Your task to perform on an android device: turn off sleep mode Image 0: 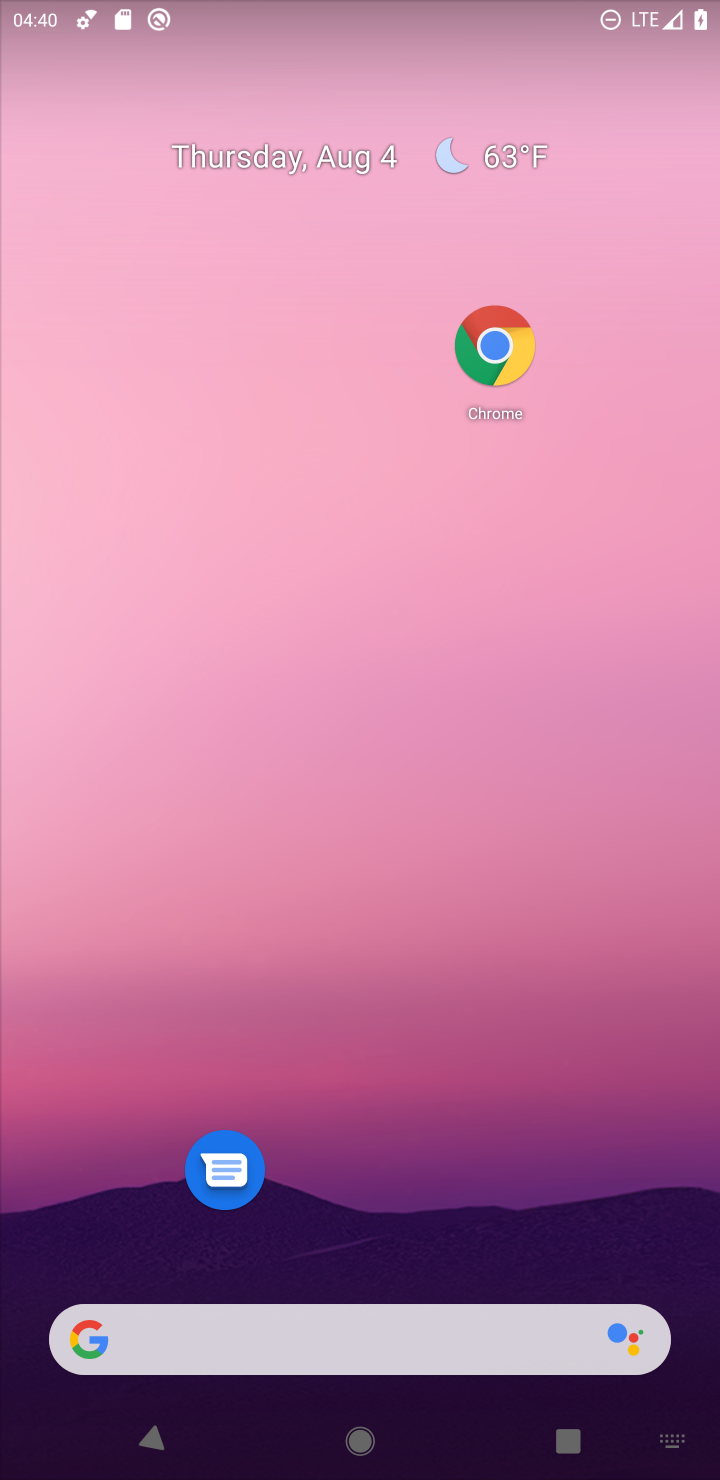
Step 0: drag from (665, 1267) to (543, 266)
Your task to perform on an android device: turn off sleep mode Image 1: 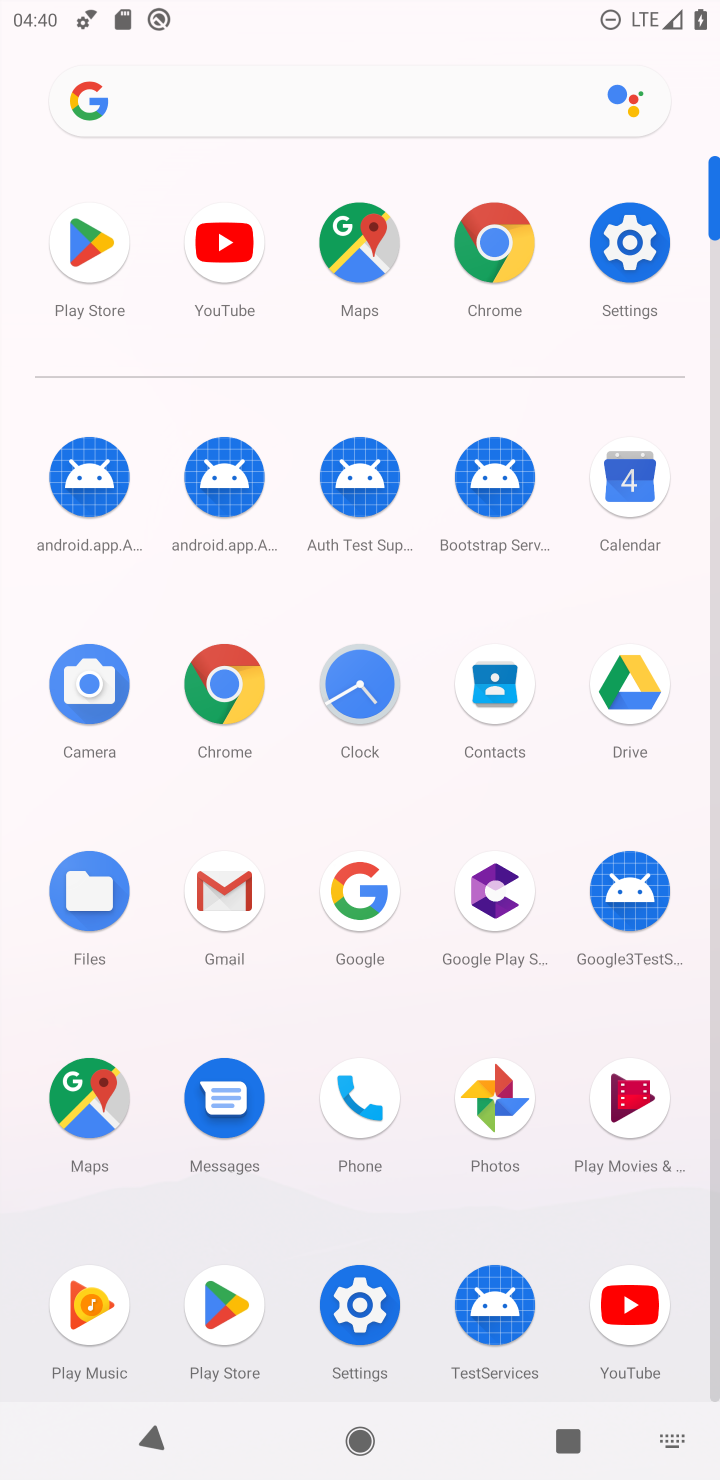
Step 1: click (631, 247)
Your task to perform on an android device: turn off sleep mode Image 2: 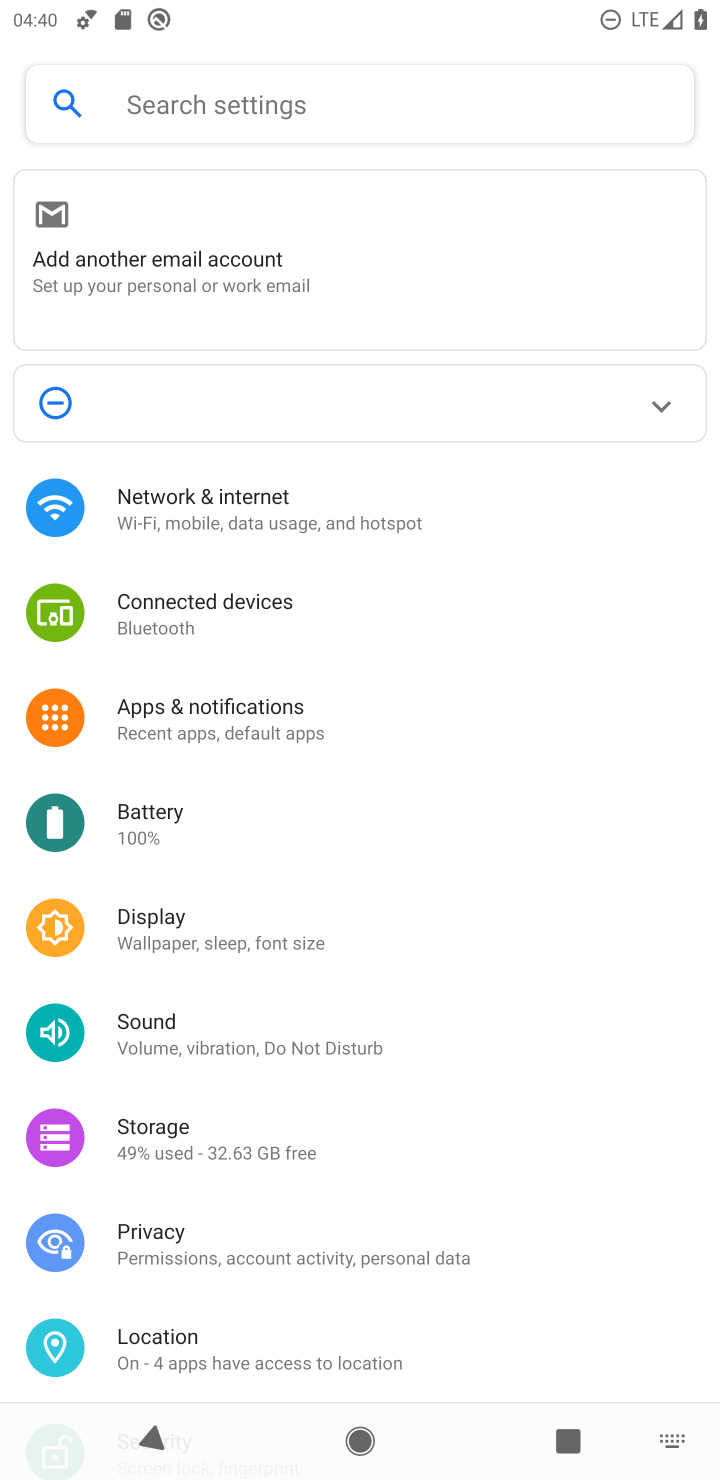
Step 2: click (343, 935)
Your task to perform on an android device: turn off sleep mode Image 3: 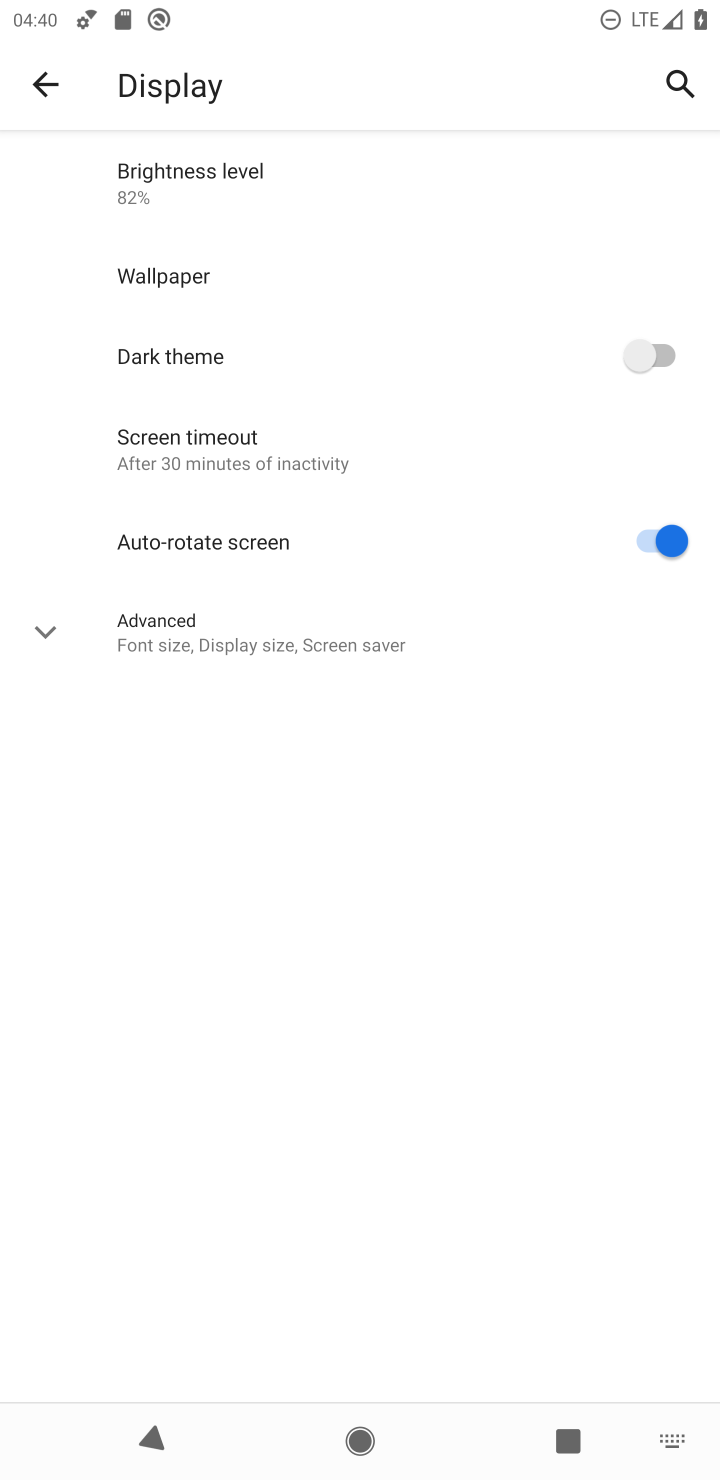
Step 3: click (396, 638)
Your task to perform on an android device: turn off sleep mode Image 4: 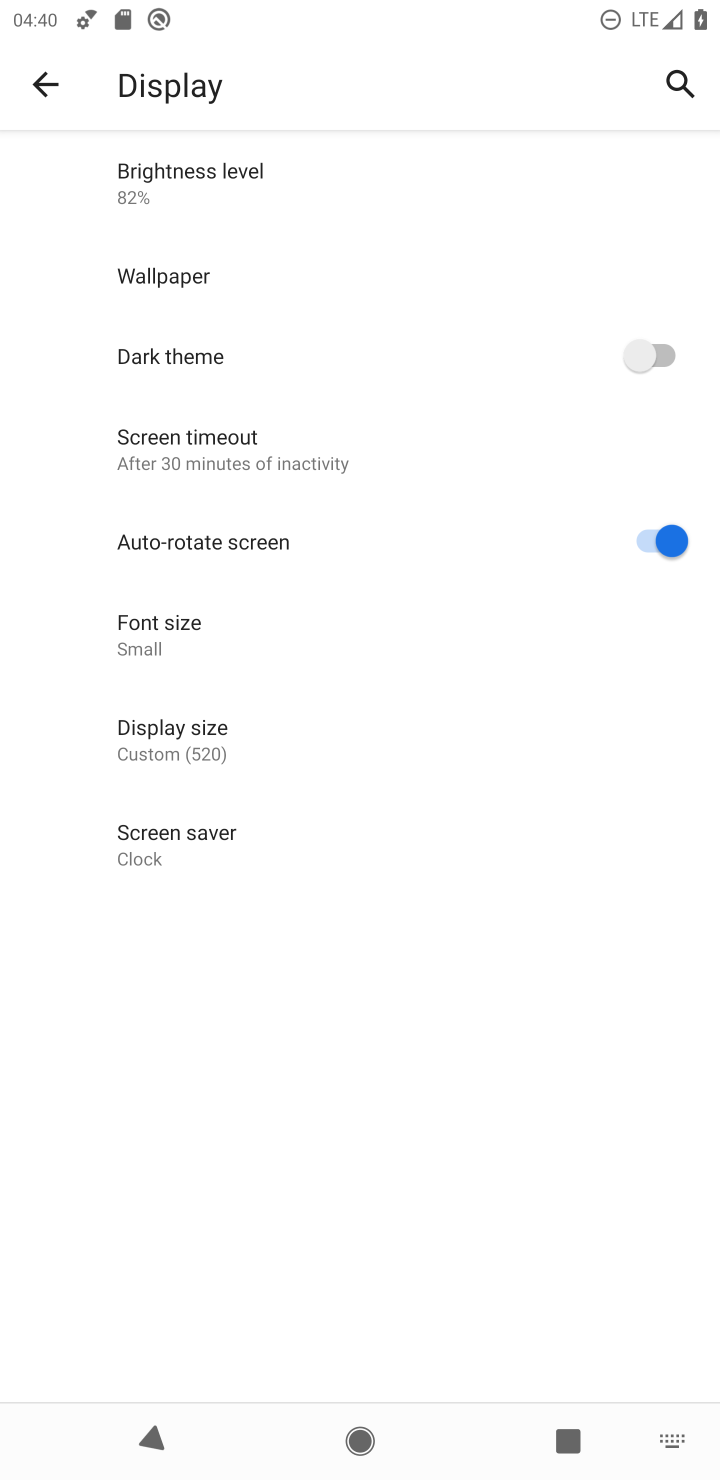
Step 4: task complete